Your task to perform on an android device: change notification settings in the gmail app Image 0: 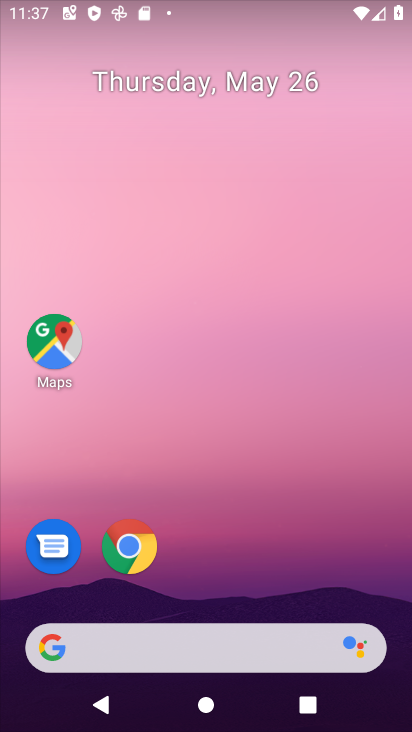
Step 0: drag from (241, 547) to (248, 128)
Your task to perform on an android device: change notification settings in the gmail app Image 1: 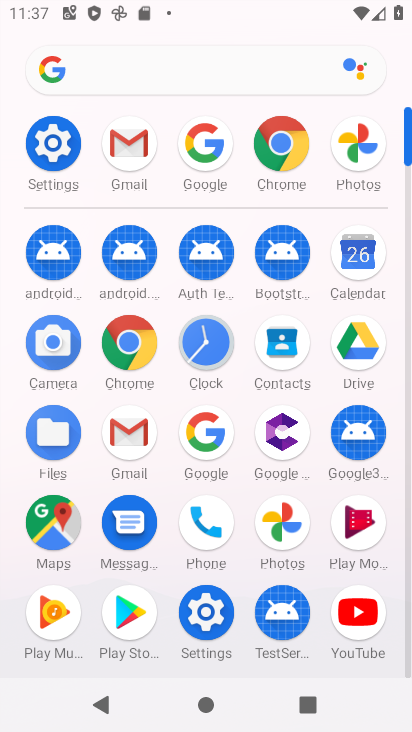
Step 1: click (138, 438)
Your task to perform on an android device: change notification settings in the gmail app Image 2: 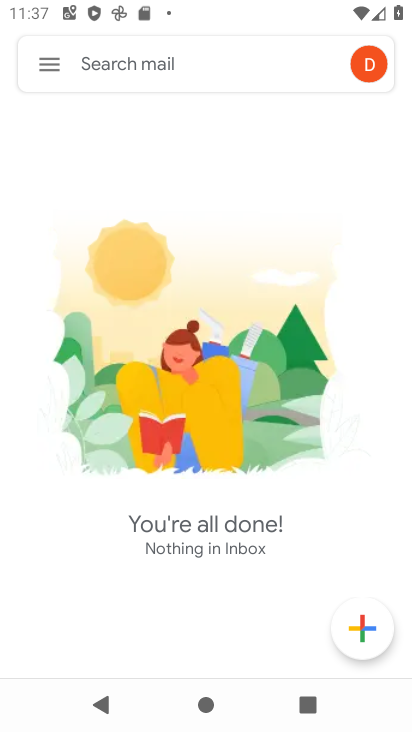
Step 2: click (45, 68)
Your task to perform on an android device: change notification settings in the gmail app Image 3: 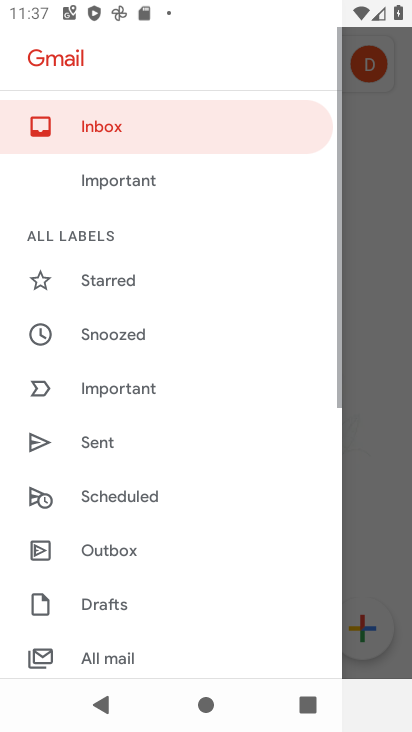
Step 3: drag from (129, 612) to (141, 99)
Your task to perform on an android device: change notification settings in the gmail app Image 4: 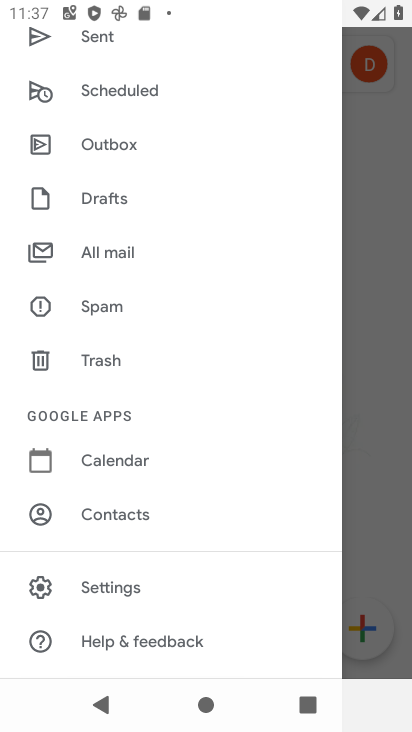
Step 4: click (128, 579)
Your task to perform on an android device: change notification settings in the gmail app Image 5: 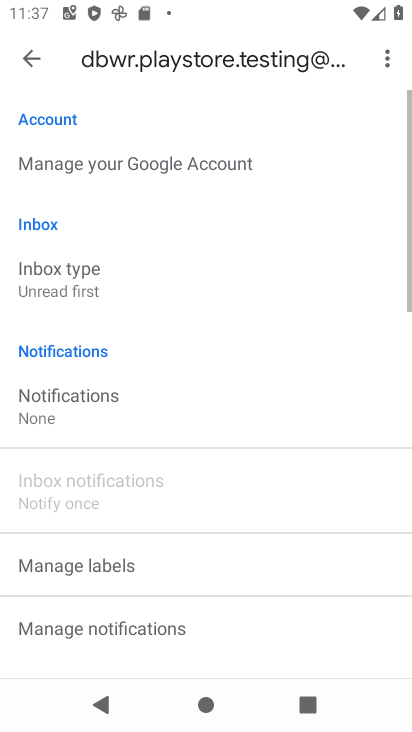
Step 5: drag from (175, 583) to (170, 276)
Your task to perform on an android device: change notification settings in the gmail app Image 6: 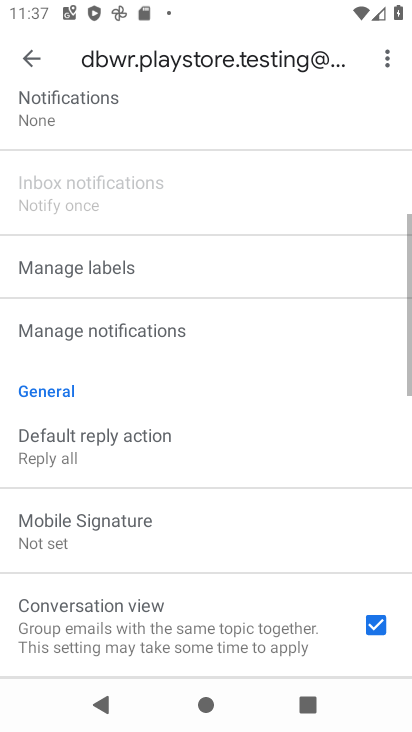
Step 6: drag from (70, 324) to (117, 549)
Your task to perform on an android device: change notification settings in the gmail app Image 7: 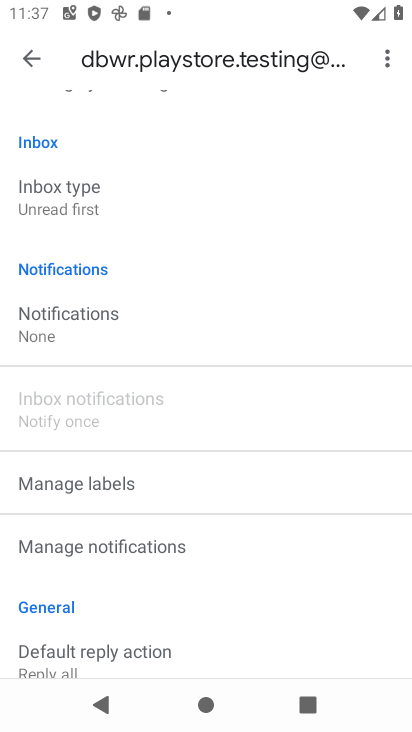
Step 7: click (70, 323)
Your task to perform on an android device: change notification settings in the gmail app Image 8: 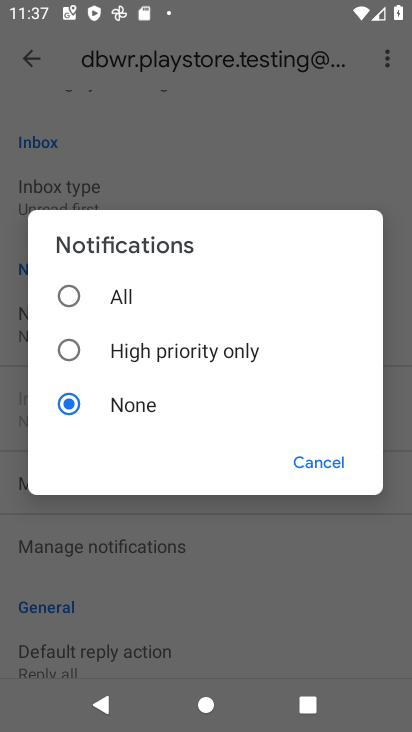
Step 8: click (74, 295)
Your task to perform on an android device: change notification settings in the gmail app Image 9: 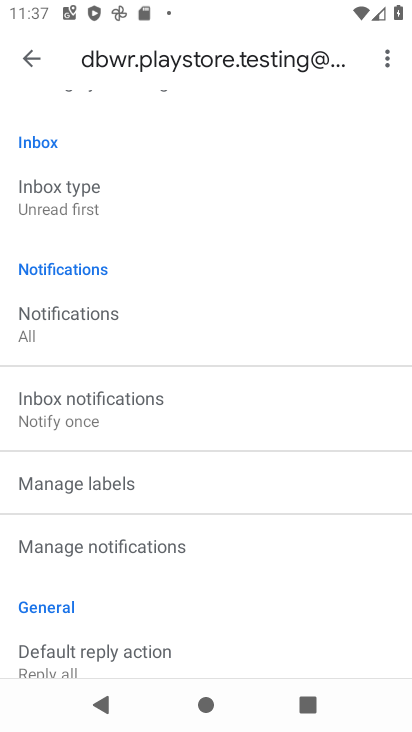
Step 9: task complete